Your task to perform on an android device: toggle notifications settings in the gmail app Image 0: 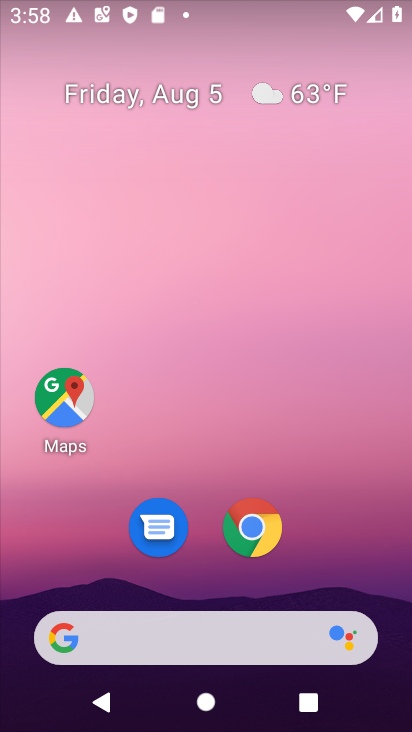
Step 0: drag from (205, 603) to (192, 50)
Your task to perform on an android device: toggle notifications settings in the gmail app Image 1: 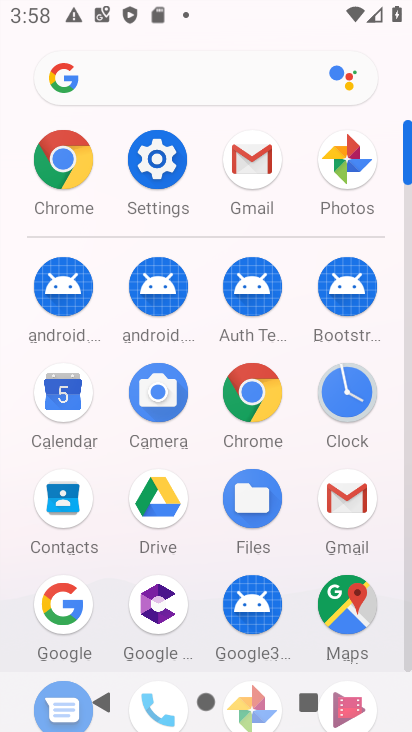
Step 1: click (358, 510)
Your task to perform on an android device: toggle notifications settings in the gmail app Image 2: 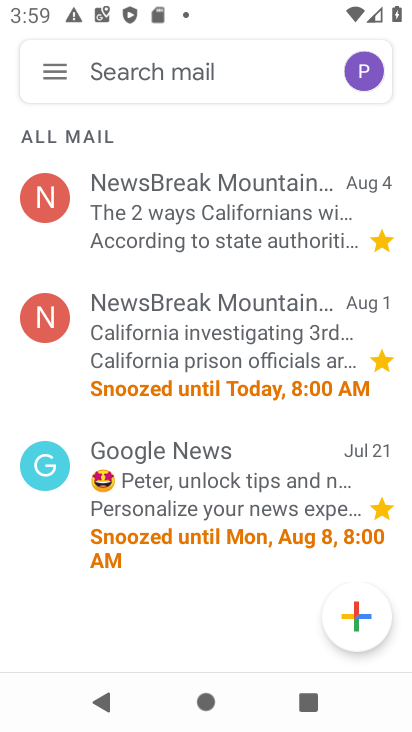
Step 2: click (54, 68)
Your task to perform on an android device: toggle notifications settings in the gmail app Image 3: 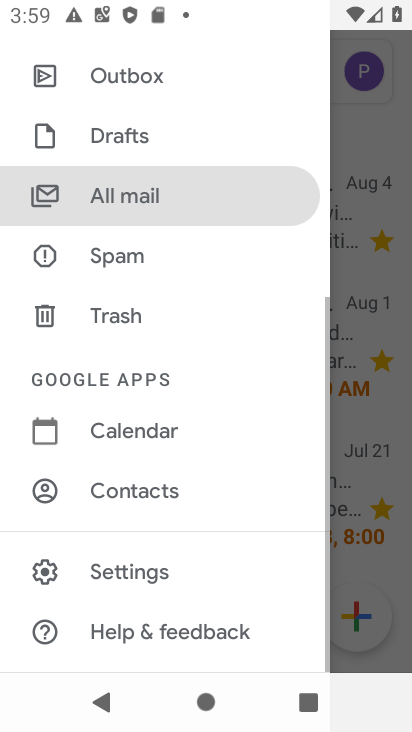
Step 3: click (123, 573)
Your task to perform on an android device: toggle notifications settings in the gmail app Image 4: 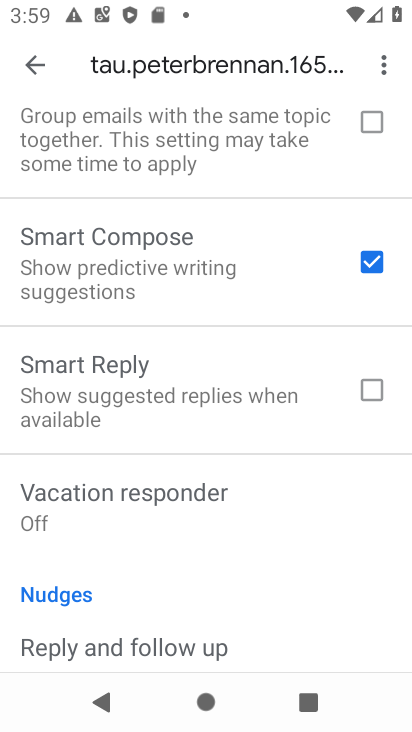
Step 4: drag from (150, 126) to (143, 592)
Your task to perform on an android device: toggle notifications settings in the gmail app Image 5: 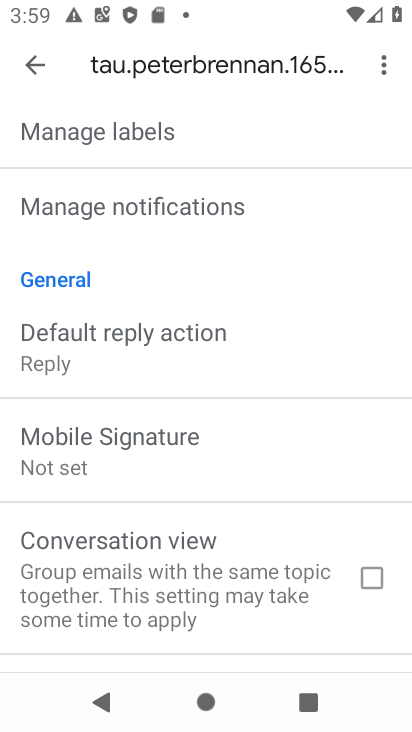
Step 5: drag from (166, 143) to (157, 577)
Your task to perform on an android device: toggle notifications settings in the gmail app Image 6: 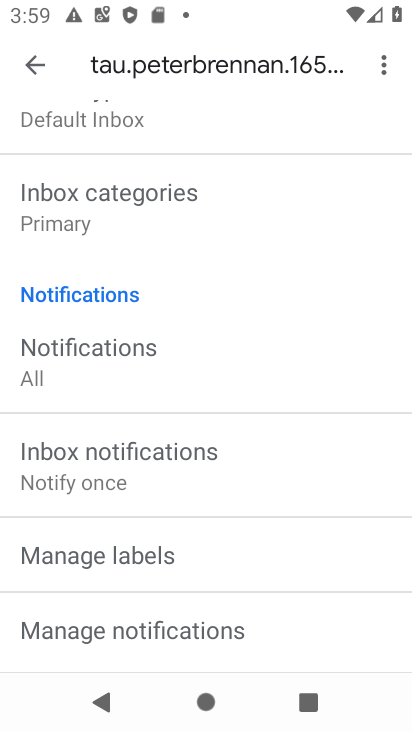
Step 6: drag from (175, 175) to (186, 353)
Your task to perform on an android device: toggle notifications settings in the gmail app Image 7: 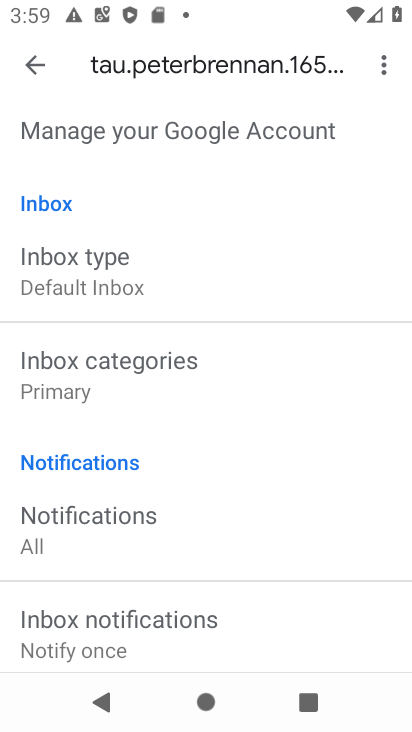
Step 7: click (112, 523)
Your task to perform on an android device: toggle notifications settings in the gmail app Image 8: 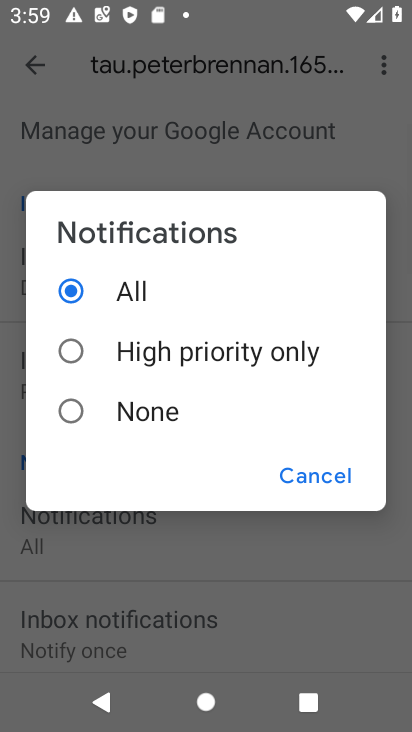
Step 8: click (75, 404)
Your task to perform on an android device: toggle notifications settings in the gmail app Image 9: 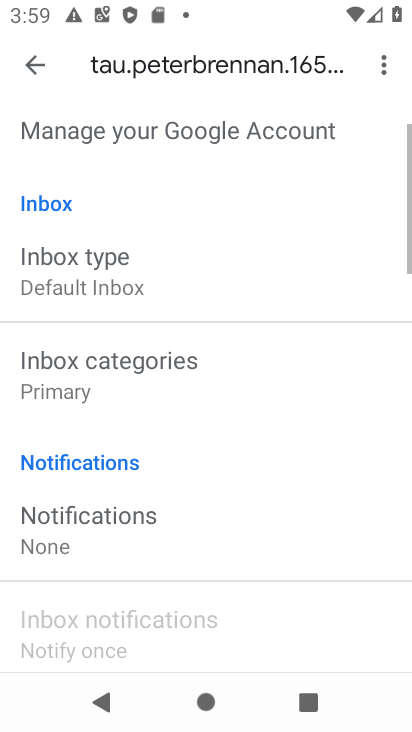
Step 9: task complete